Your task to perform on an android device: Turn off the flashlight Image 0: 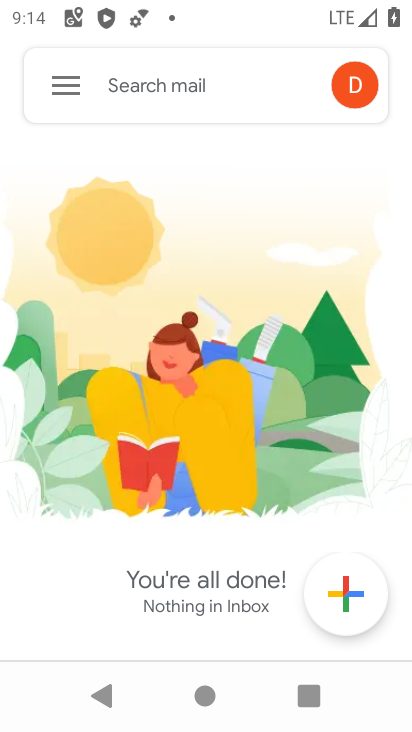
Step 0: press home button
Your task to perform on an android device: Turn off the flashlight Image 1: 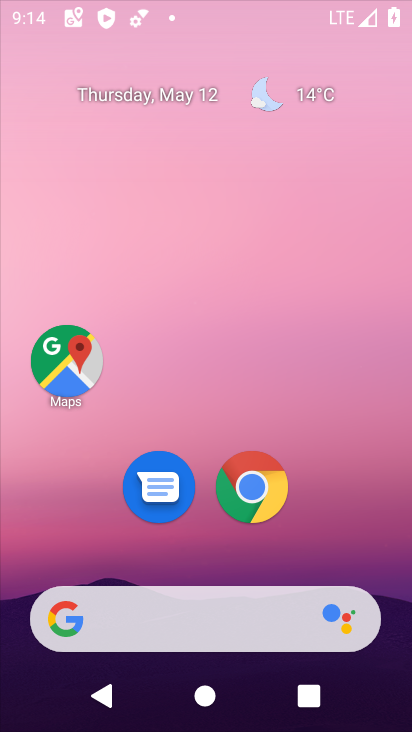
Step 1: drag from (82, 729) to (293, 163)
Your task to perform on an android device: Turn off the flashlight Image 2: 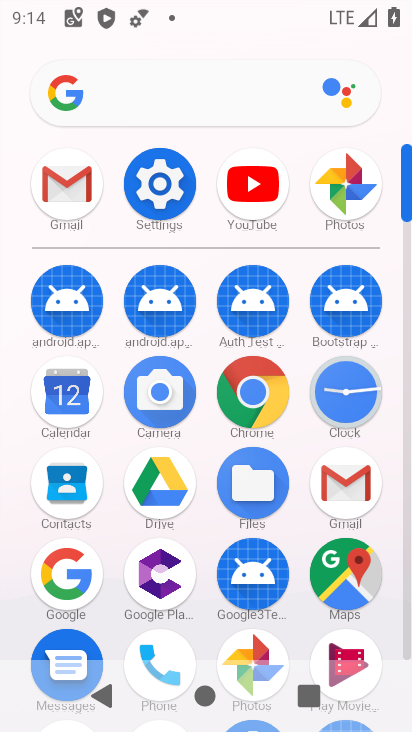
Step 2: click (167, 184)
Your task to perform on an android device: Turn off the flashlight Image 3: 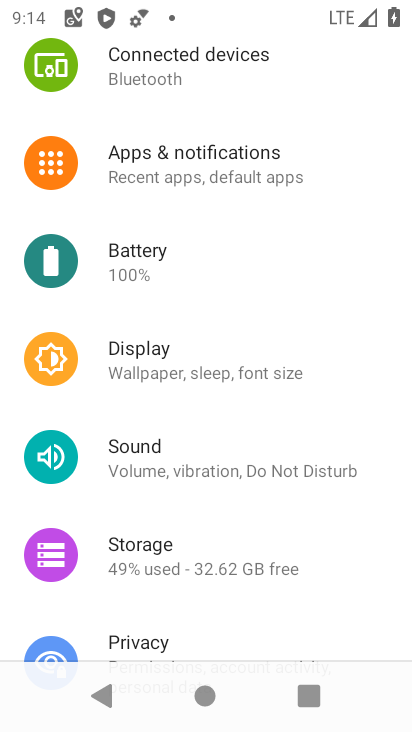
Step 3: task complete